Your task to perform on an android device: Is it going to rain tomorrow? Image 0: 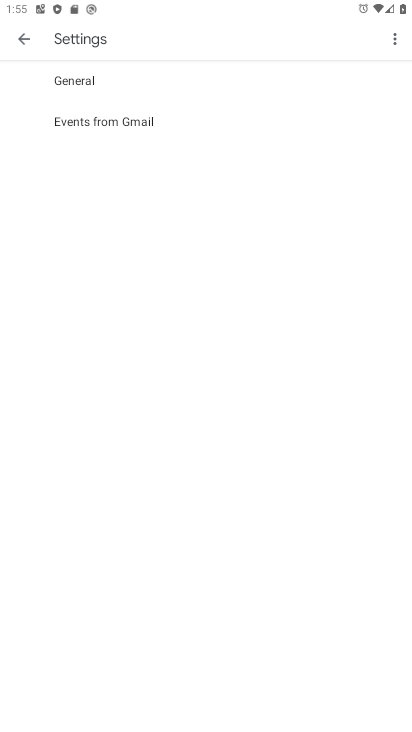
Step 0: press home button
Your task to perform on an android device: Is it going to rain tomorrow? Image 1: 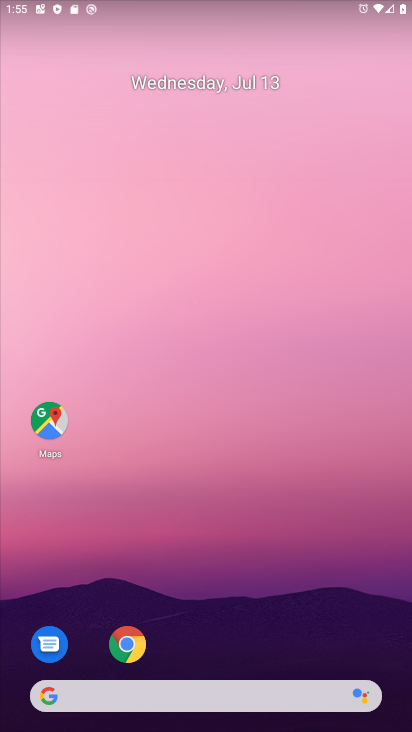
Step 1: click (209, 680)
Your task to perform on an android device: Is it going to rain tomorrow? Image 2: 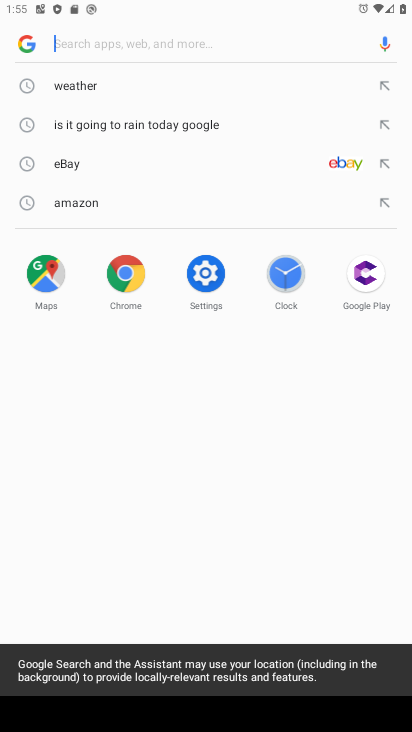
Step 2: click (78, 83)
Your task to perform on an android device: Is it going to rain tomorrow? Image 3: 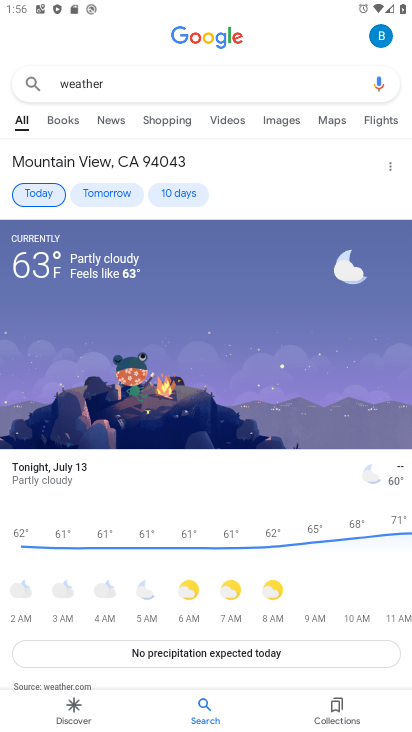
Step 3: click (116, 183)
Your task to perform on an android device: Is it going to rain tomorrow? Image 4: 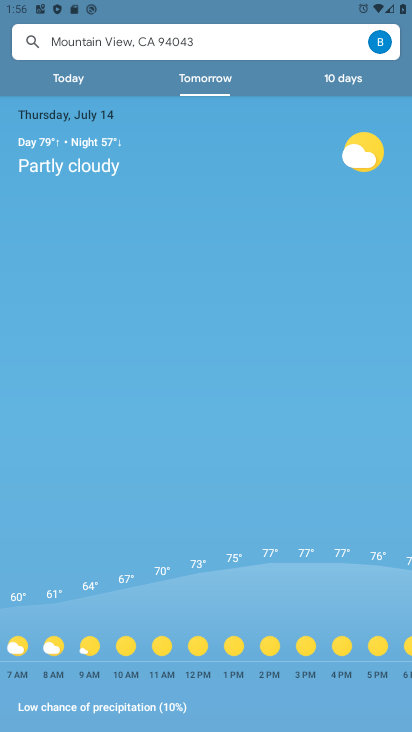
Step 4: task complete